Your task to perform on an android device: turn off priority inbox in the gmail app Image 0: 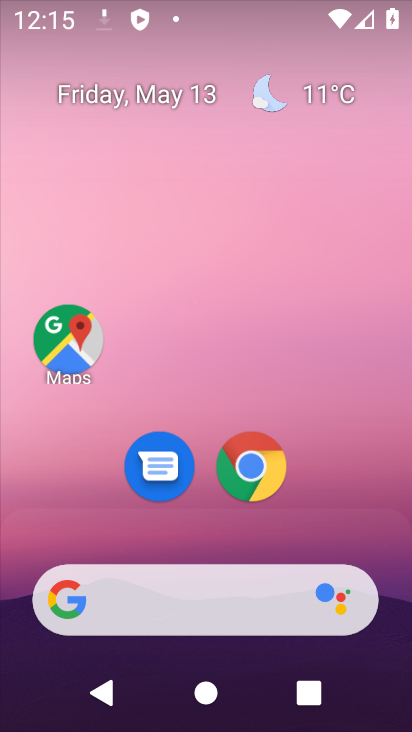
Step 0: drag from (277, 431) to (290, 60)
Your task to perform on an android device: turn off priority inbox in the gmail app Image 1: 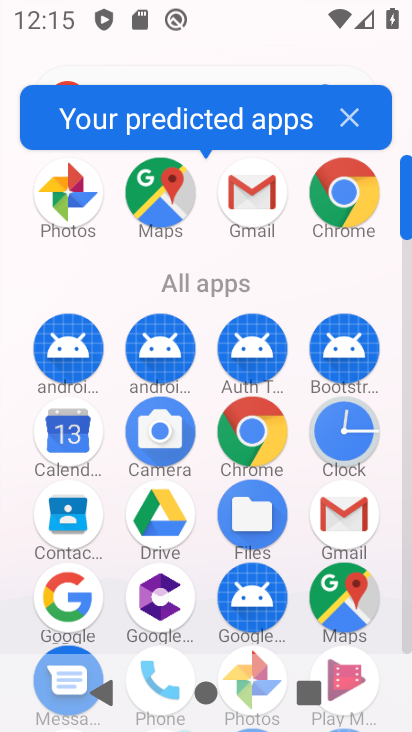
Step 1: click (347, 497)
Your task to perform on an android device: turn off priority inbox in the gmail app Image 2: 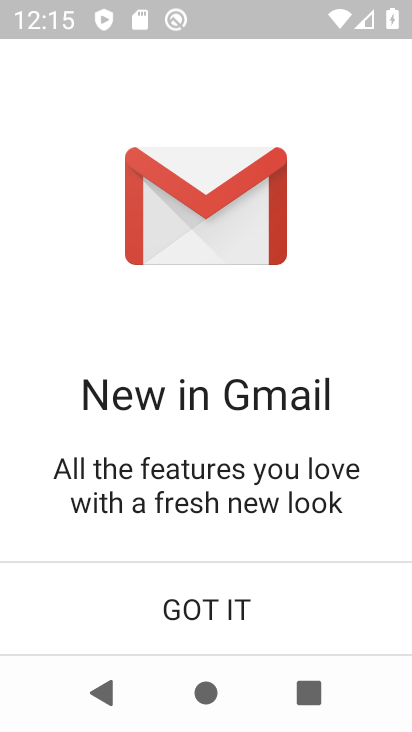
Step 2: click (211, 589)
Your task to perform on an android device: turn off priority inbox in the gmail app Image 3: 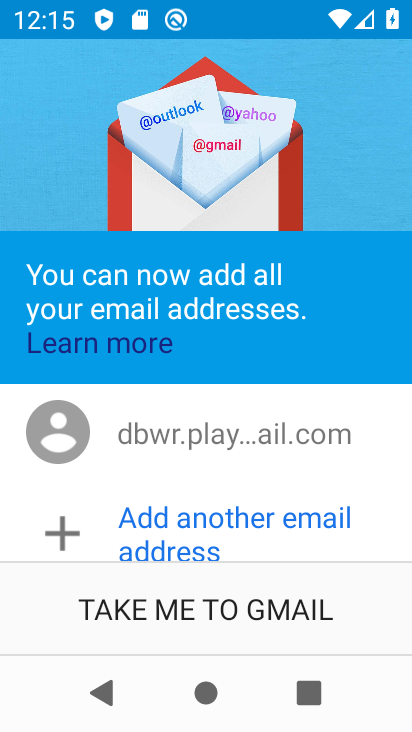
Step 3: click (186, 587)
Your task to perform on an android device: turn off priority inbox in the gmail app Image 4: 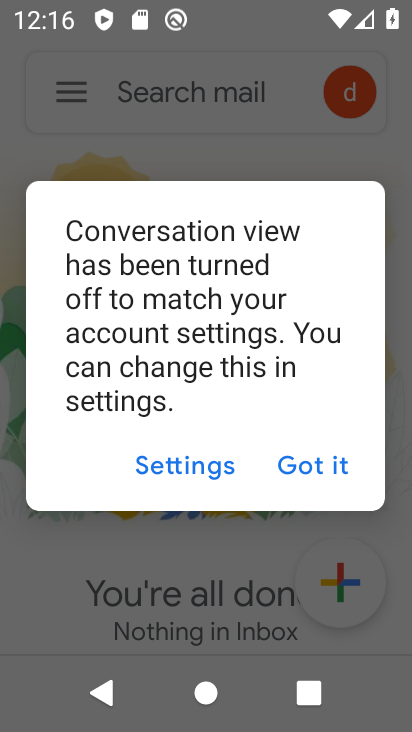
Step 4: click (320, 462)
Your task to perform on an android device: turn off priority inbox in the gmail app Image 5: 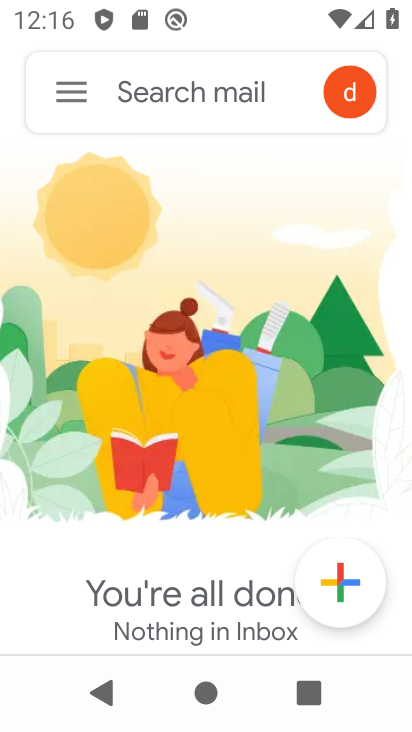
Step 5: click (48, 83)
Your task to perform on an android device: turn off priority inbox in the gmail app Image 6: 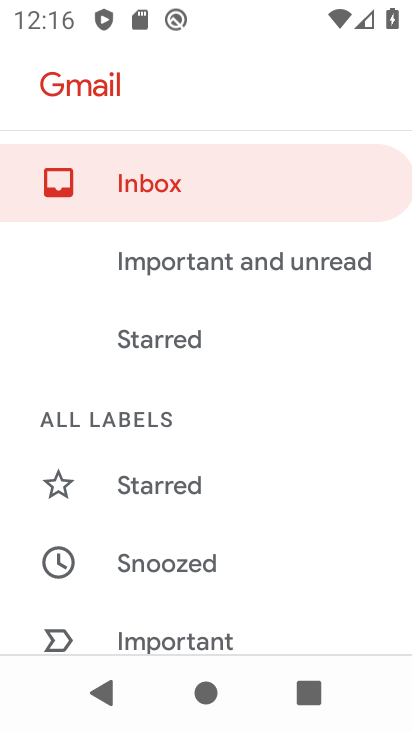
Step 6: drag from (127, 516) to (155, 179)
Your task to perform on an android device: turn off priority inbox in the gmail app Image 7: 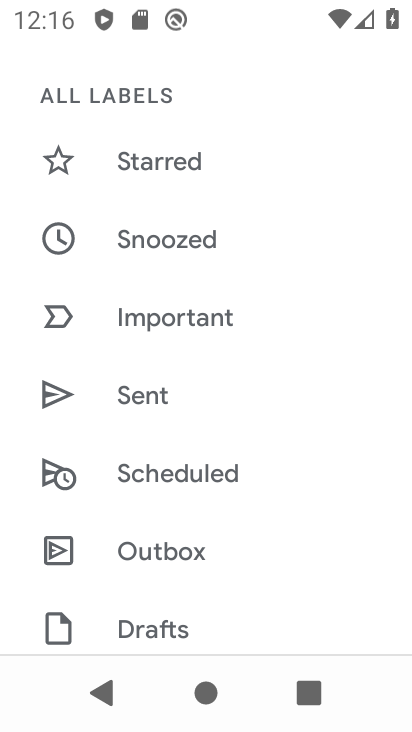
Step 7: drag from (133, 565) to (208, 228)
Your task to perform on an android device: turn off priority inbox in the gmail app Image 8: 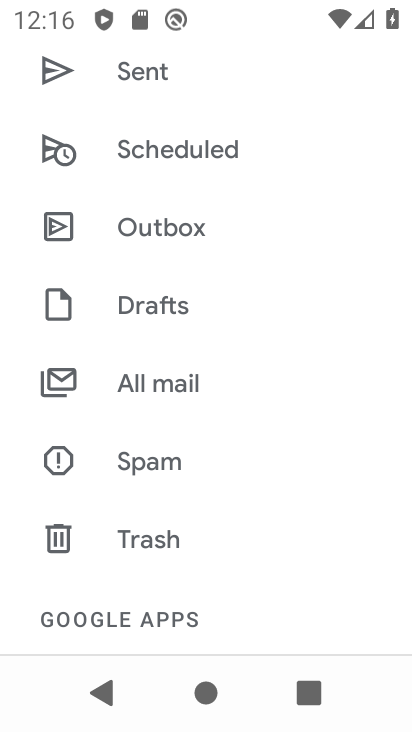
Step 8: drag from (145, 591) to (150, 227)
Your task to perform on an android device: turn off priority inbox in the gmail app Image 9: 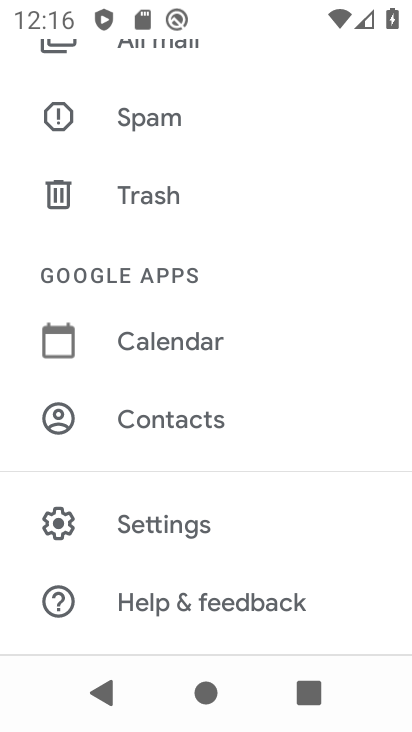
Step 9: click (166, 515)
Your task to perform on an android device: turn off priority inbox in the gmail app Image 10: 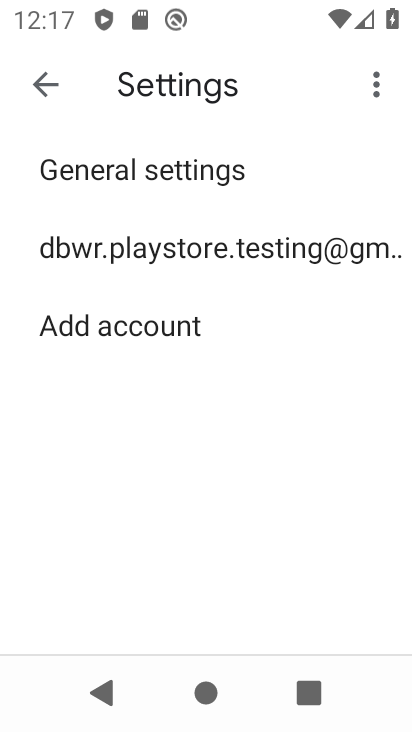
Step 10: click (218, 243)
Your task to perform on an android device: turn off priority inbox in the gmail app Image 11: 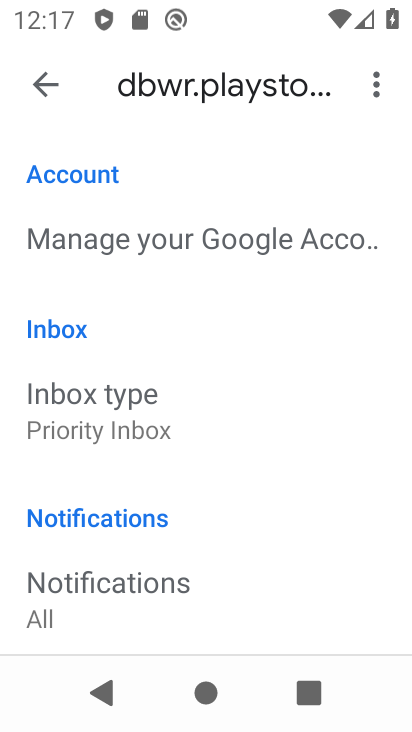
Step 11: click (122, 425)
Your task to perform on an android device: turn off priority inbox in the gmail app Image 12: 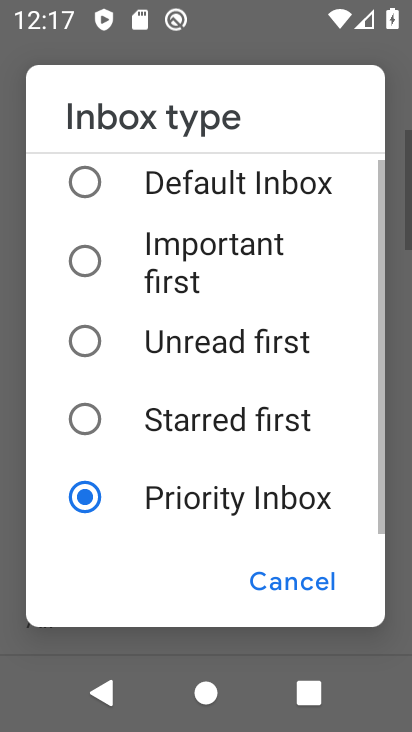
Step 12: click (216, 188)
Your task to perform on an android device: turn off priority inbox in the gmail app Image 13: 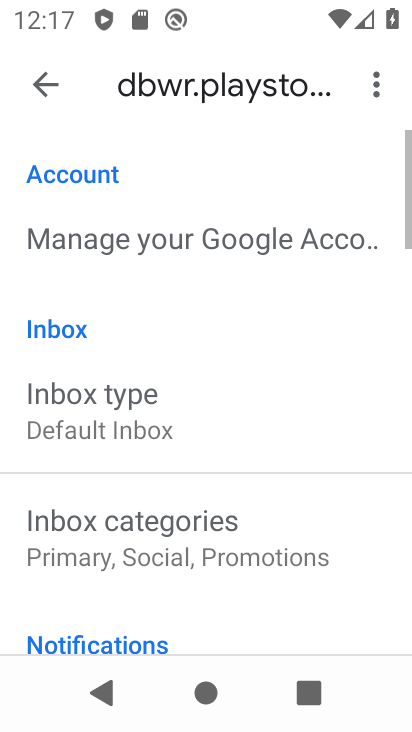
Step 13: task complete